Your task to perform on an android device: Search for Italian restaurants on Maps Image 0: 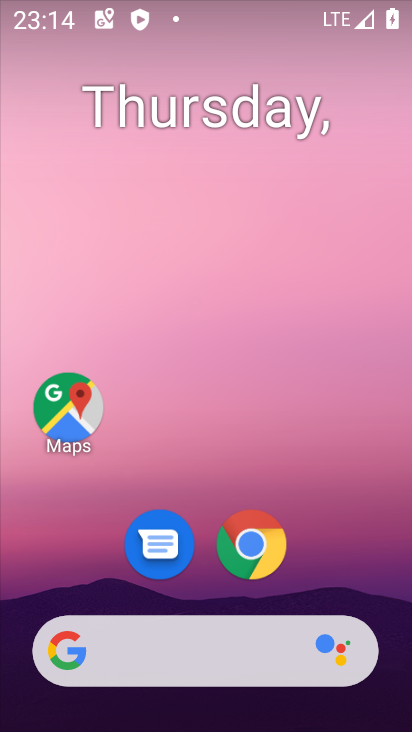
Step 0: click (72, 404)
Your task to perform on an android device: Search for Italian restaurants on Maps Image 1: 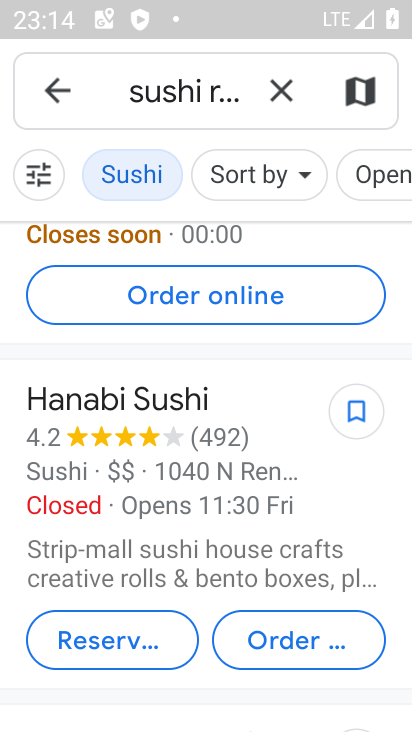
Step 1: click (279, 93)
Your task to perform on an android device: Search for Italian restaurants on Maps Image 2: 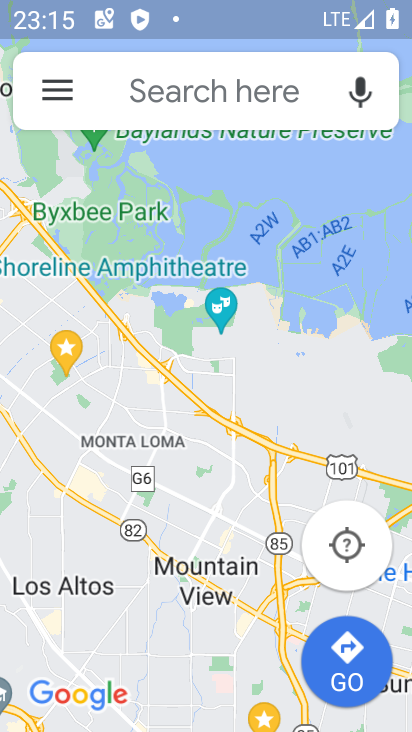
Step 2: click (179, 91)
Your task to perform on an android device: Search for Italian restaurants on Maps Image 3: 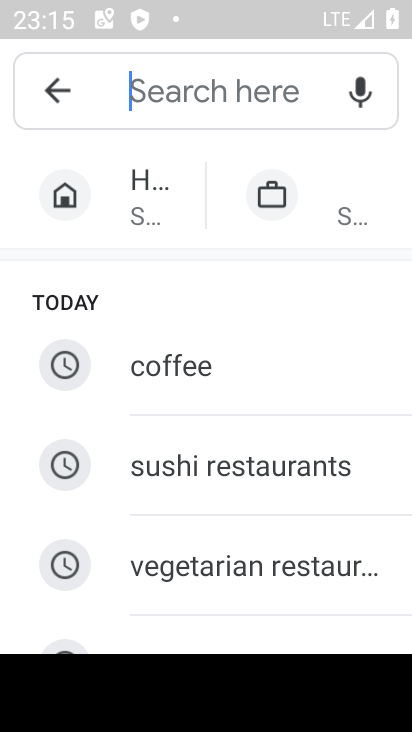
Step 3: drag from (222, 577) to (237, 218)
Your task to perform on an android device: Search for Italian restaurants on Maps Image 4: 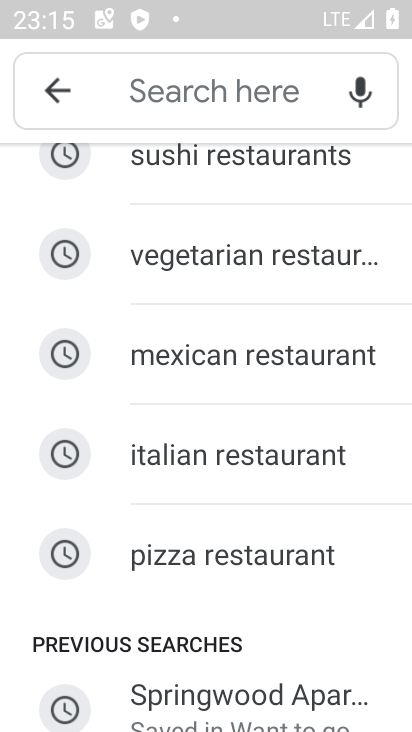
Step 4: click (216, 458)
Your task to perform on an android device: Search for Italian restaurants on Maps Image 5: 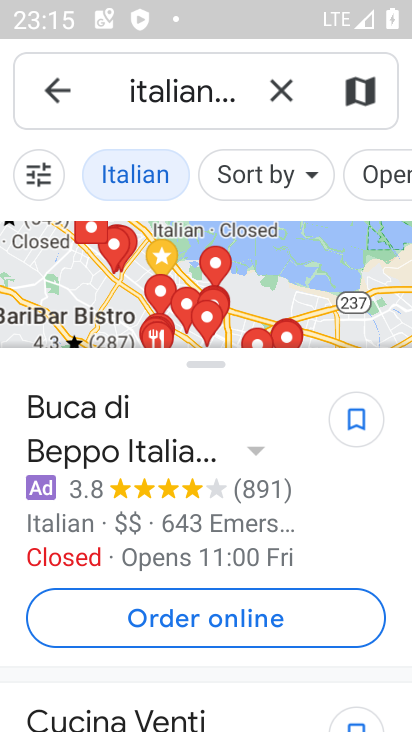
Step 5: drag from (140, 690) to (144, 313)
Your task to perform on an android device: Search for Italian restaurants on Maps Image 6: 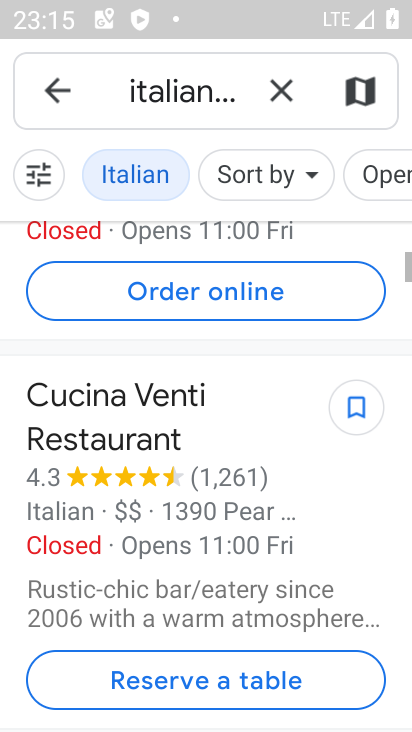
Step 6: click (146, 291)
Your task to perform on an android device: Search for Italian restaurants on Maps Image 7: 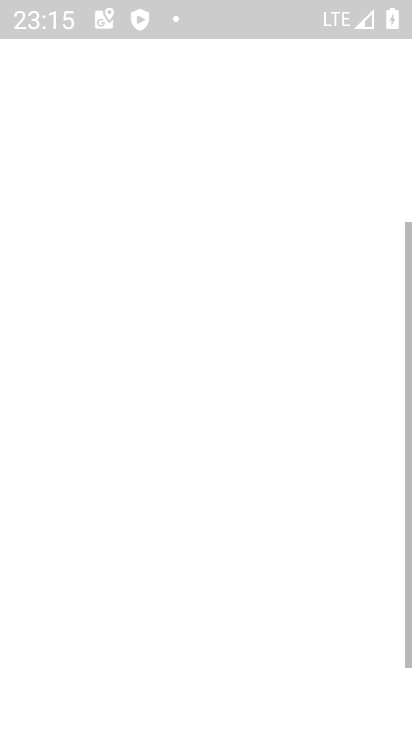
Step 7: task complete